Your task to perform on an android device: Do I have any events this weekend? Image 0: 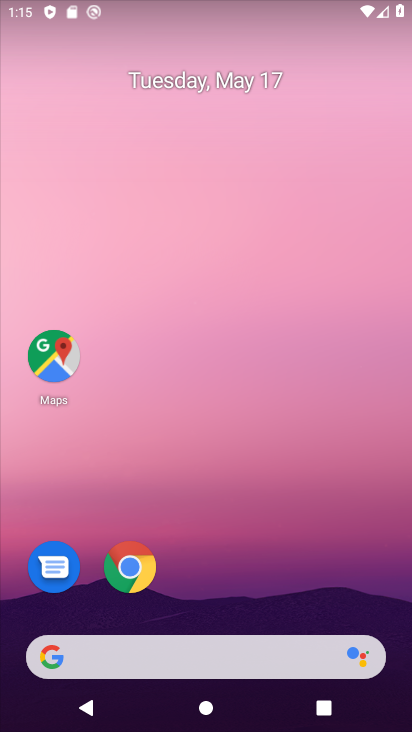
Step 0: drag from (394, 618) to (314, 203)
Your task to perform on an android device: Do I have any events this weekend? Image 1: 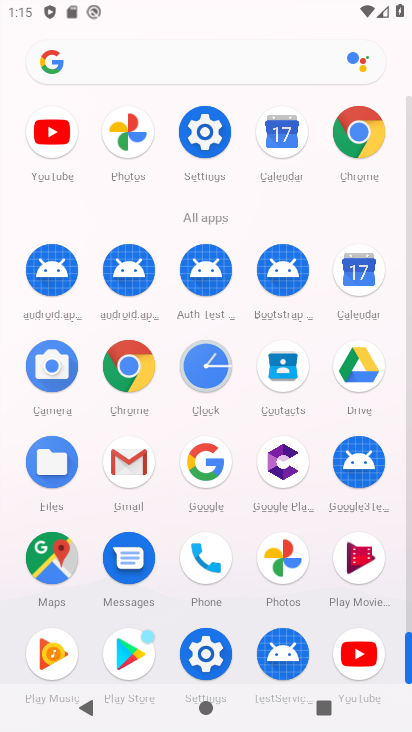
Step 1: click (363, 270)
Your task to perform on an android device: Do I have any events this weekend? Image 2: 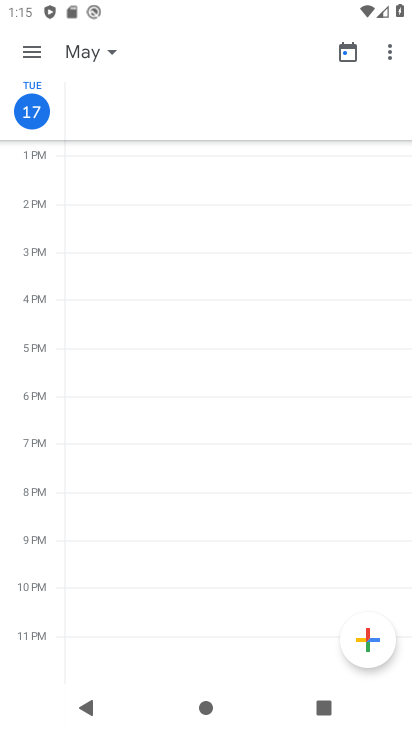
Step 2: click (20, 47)
Your task to perform on an android device: Do I have any events this weekend? Image 3: 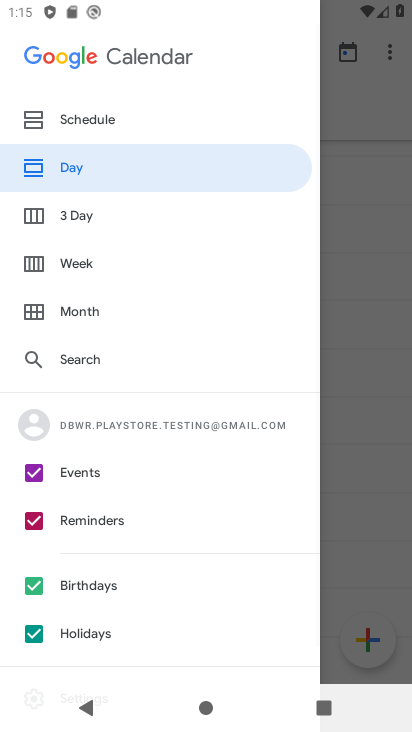
Step 3: click (90, 265)
Your task to perform on an android device: Do I have any events this weekend? Image 4: 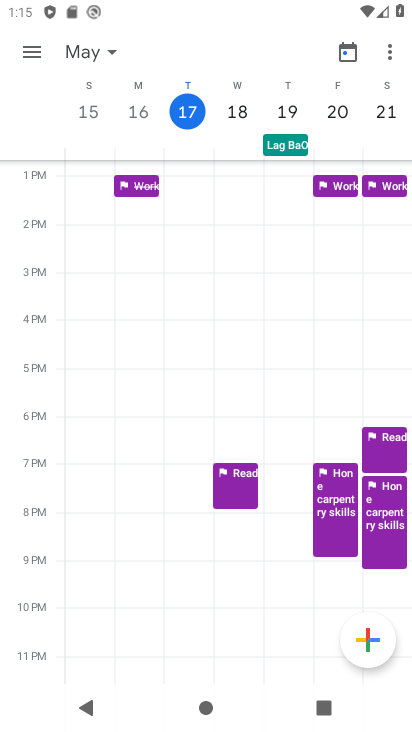
Step 4: click (101, 53)
Your task to perform on an android device: Do I have any events this weekend? Image 5: 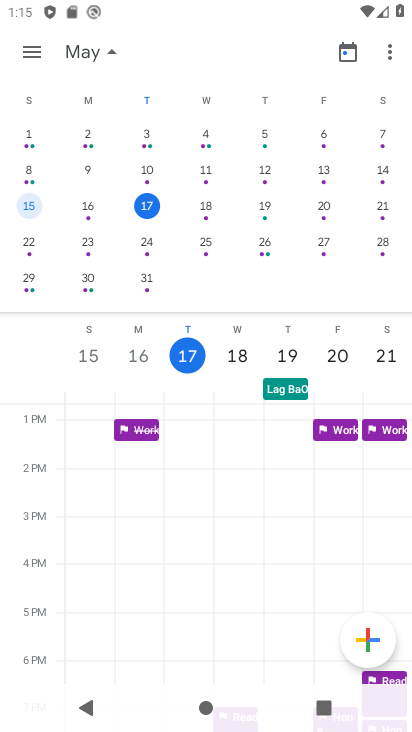
Step 5: task complete